Your task to perform on an android device: toggle improve location accuracy Image 0: 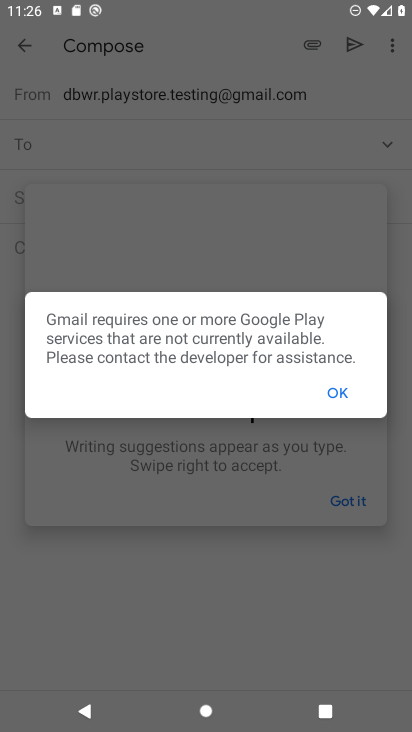
Step 0: press home button
Your task to perform on an android device: toggle improve location accuracy Image 1: 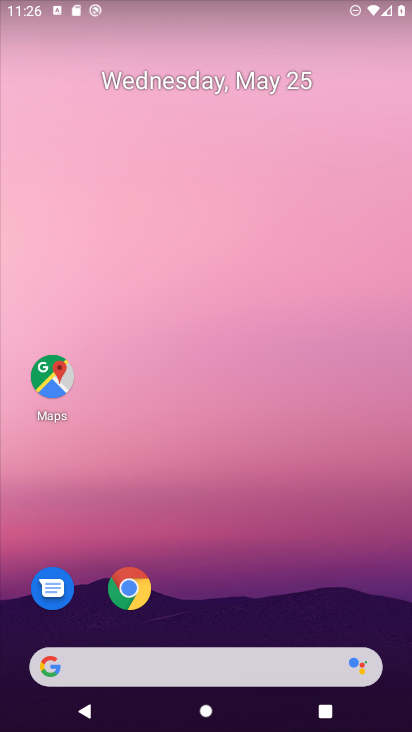
Step 1: drag from (38, 601) to (250, 243)
Your task to perform on an android device: toggle improve location accuracy Image 2: 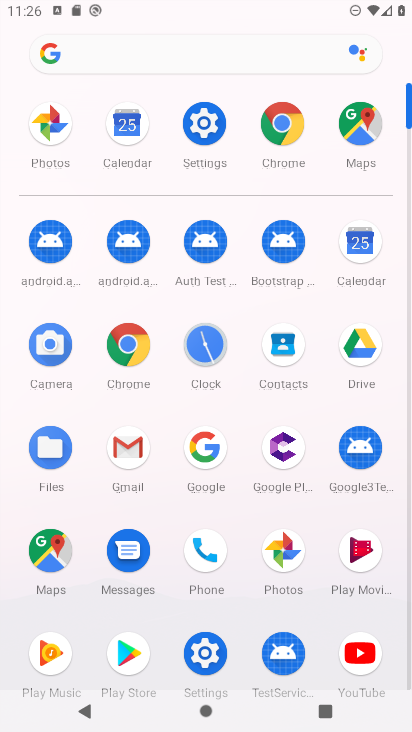
Step 2: click (207, 116)
Your task to perform on an android device: toggle improve location accuracy Image 3: 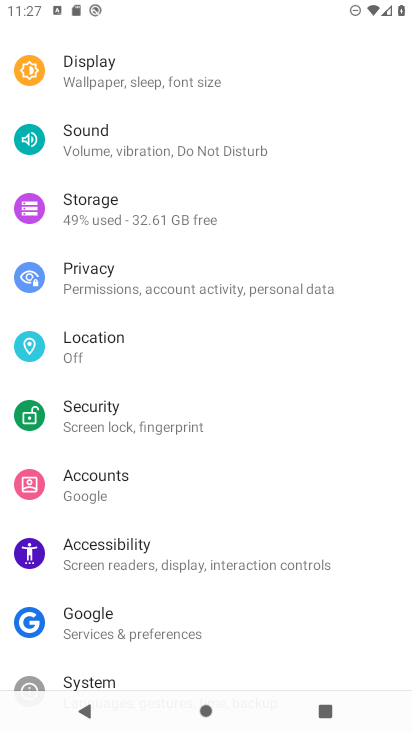
Step 3: click (119, 339)
Your task to perform on an android device: toggle improve location accuracy Image 4: 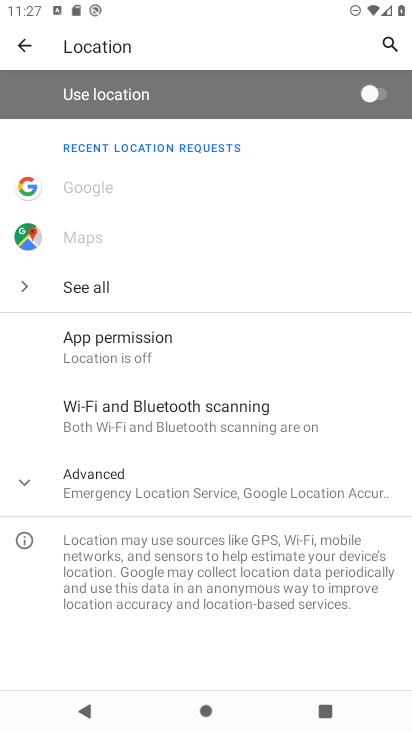
Step 4: click (106, 492)
Your task to perform on an android device: toggle improve location accuracy Image 5: 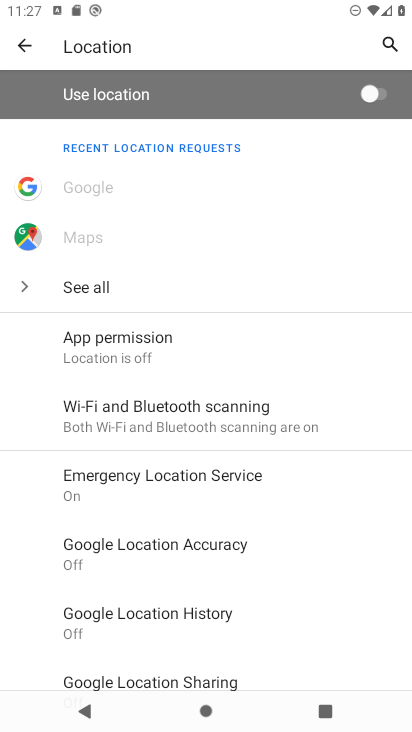
Step 5: click (217, 550)
Your task to perform on an android device: toggle improve location accuracy Image 6: 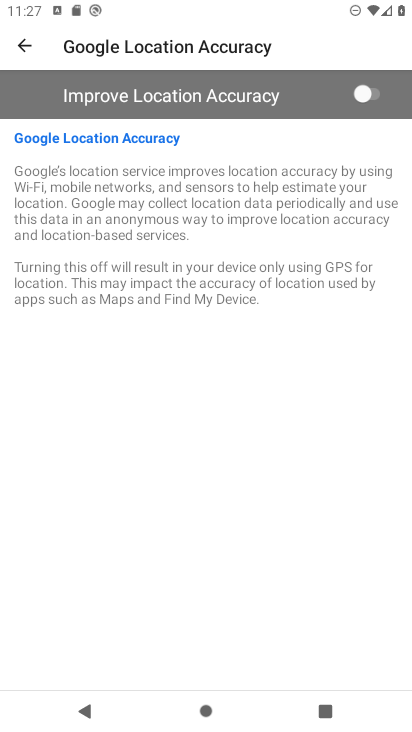
Step 6: click (355, 97)
Your task to perform on an android device: toggle improve location accuracy Image 7: 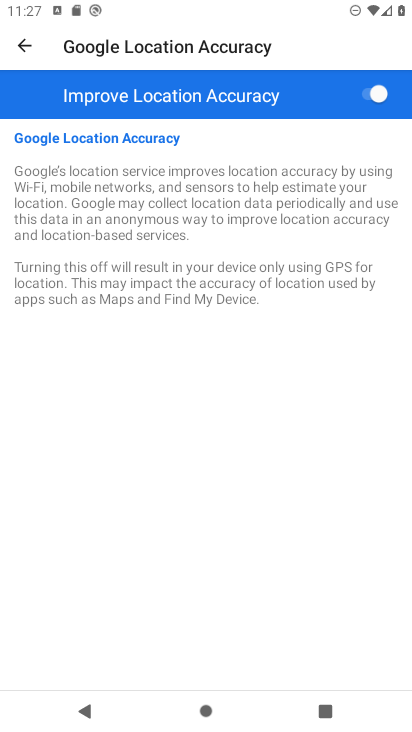
Step 7: task complete